Your task to perform on an android device: Open the gallery Image 0: 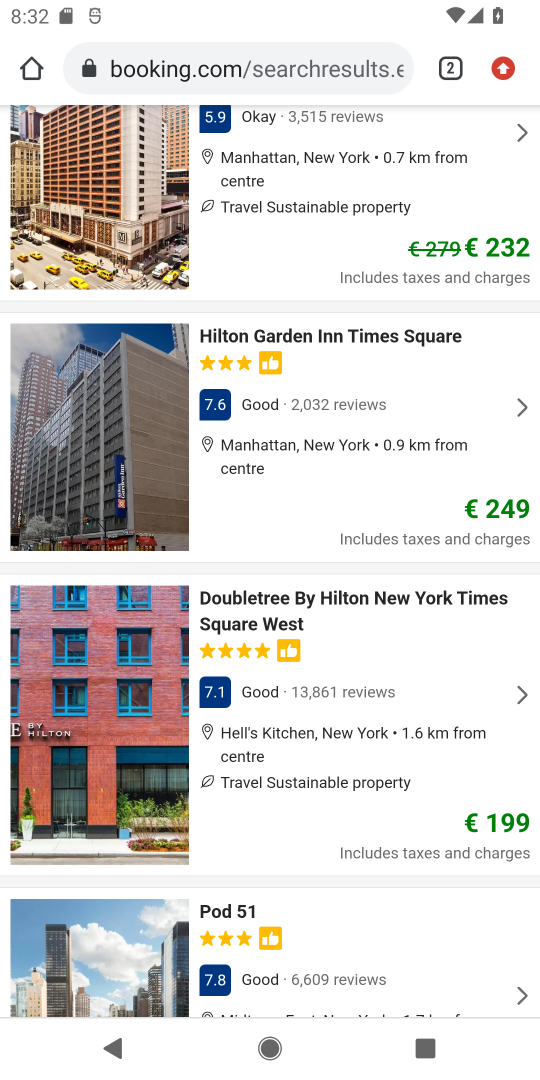
Step 0: press home button
Your task to perform on an android device: Open the gallery Image 1: 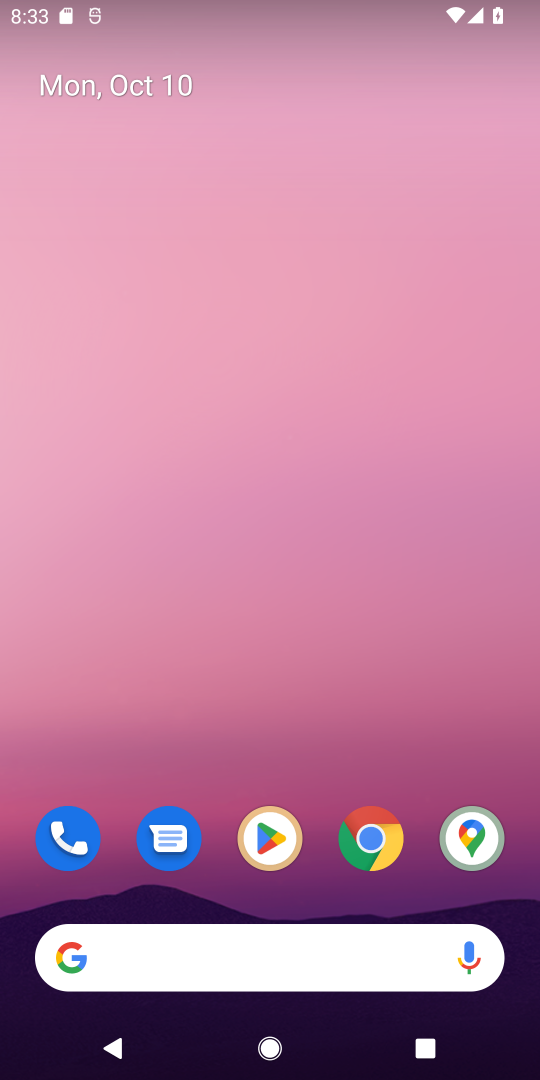
Step 1: drag from (415, 890) to (376, 260)
Your task to perform on an android device: Open the gallery Image 2: 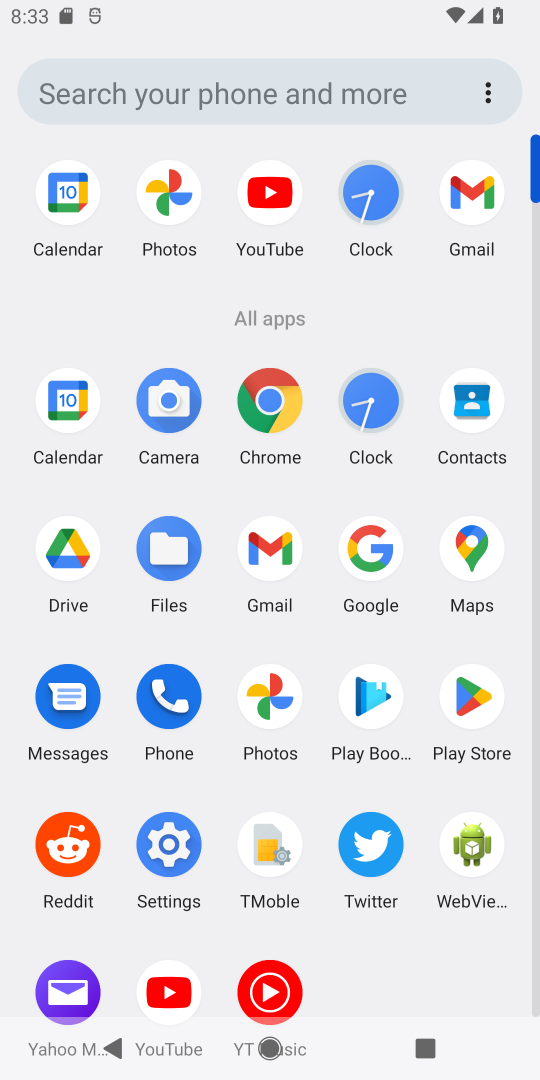
Step 2: click (271, 693)
Your task to perform on an android device: Open the gallery Image 3: 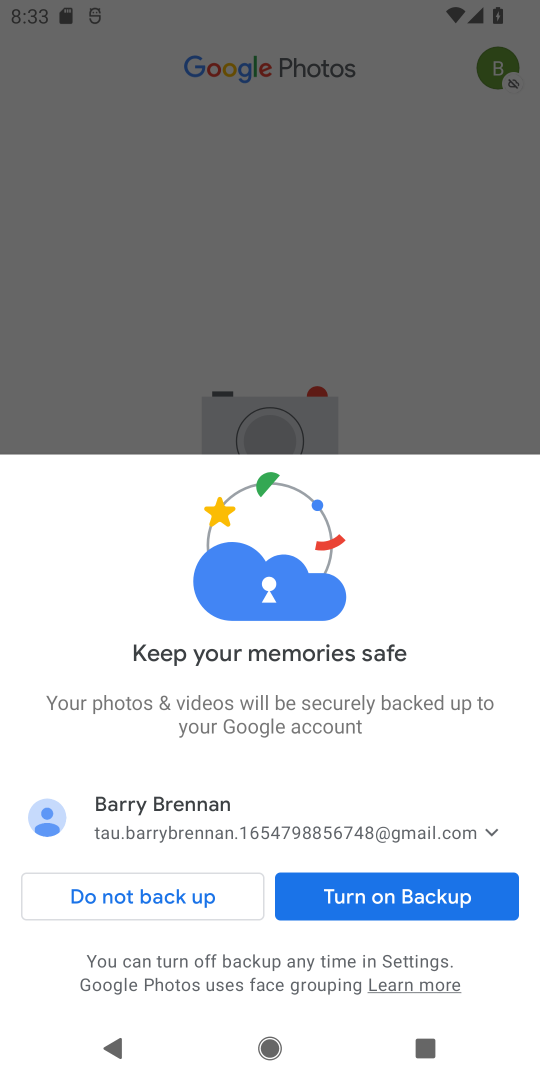
Step 3: click (380, 891)
Your task to perform on an android device: Open the gallery Image 4: 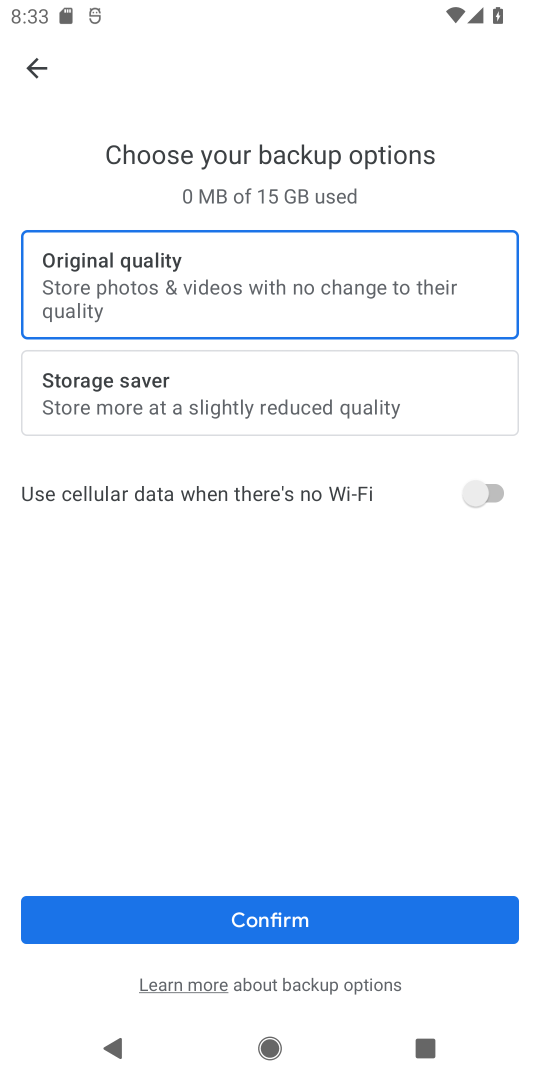
Step 4: click (255, 913)
Your task to perform on an android device: Open the gallery Image 5: 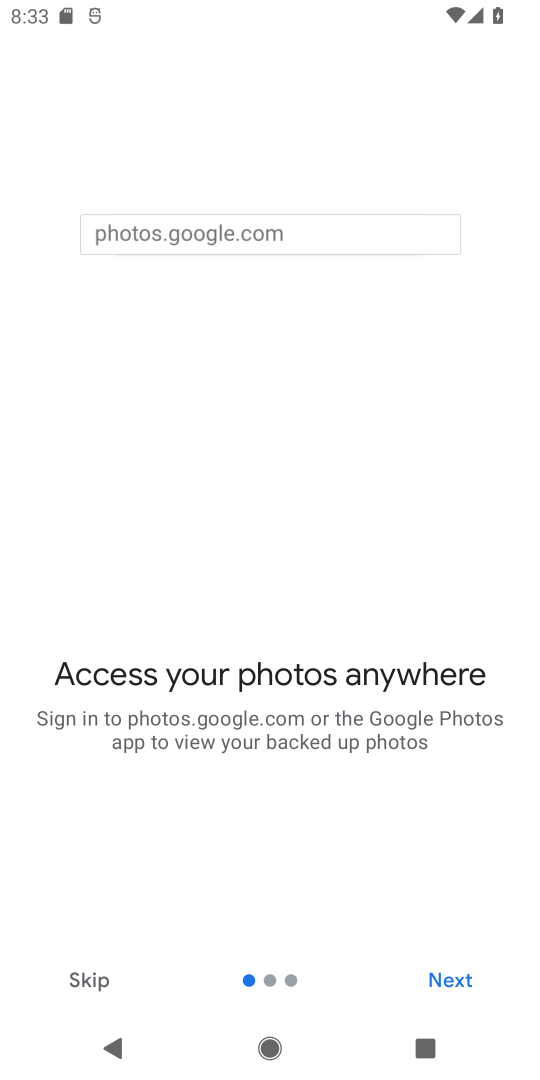
Step 5: click (76, 978)
Your task to perform on an android device: Open the gallery Image 6: 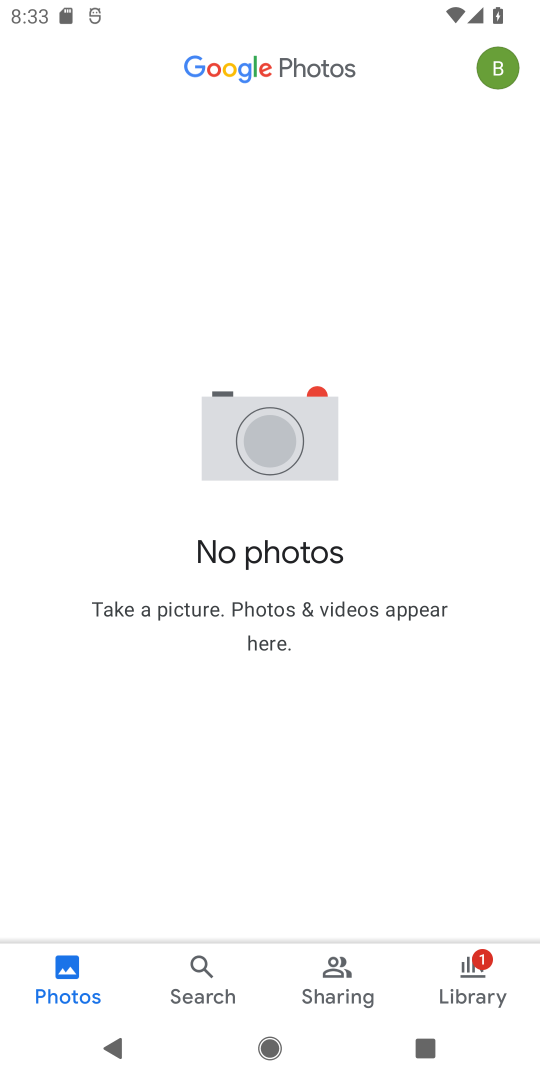
Step 6: task complete